Your task to perform on an android device: open chrome privacy settings Image 0: 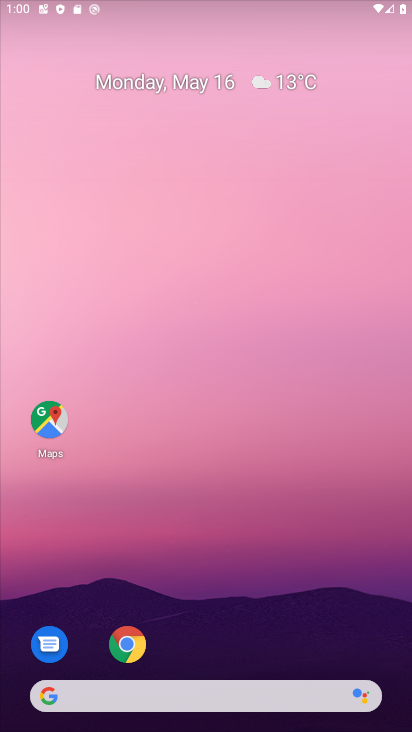
Step 0: drag from (211, 597) to (289, 190)
Your task to perform on an android device: open chrome privacy settings Image 1: 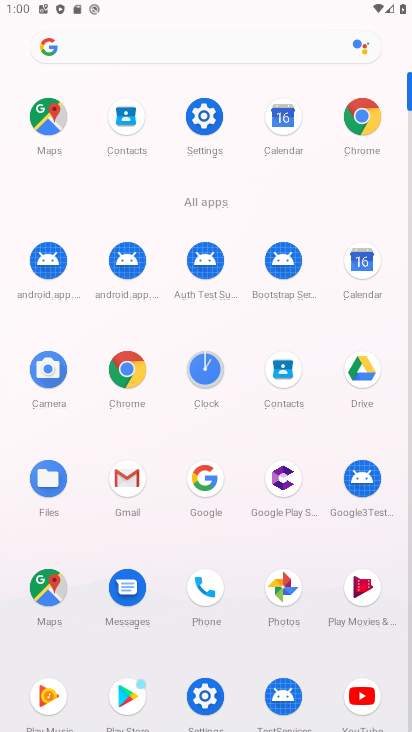
Step 1: click (358, 151)
Your task to perform on an android device: open chrome privacy settings Image 2: 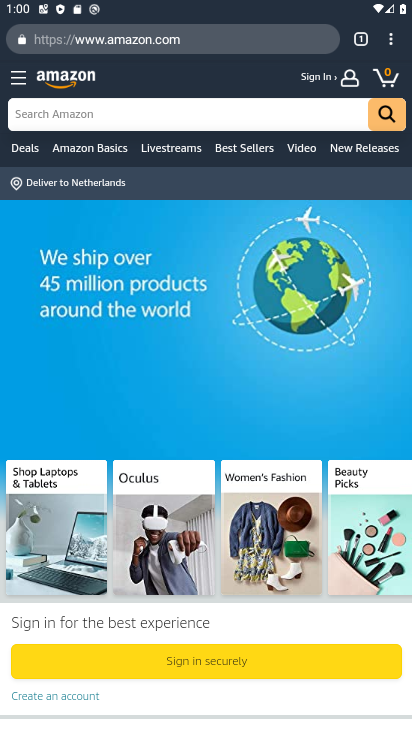
Step 2: click (391, 53)
Your task to perform on an android device: open chrome privacy settings Image 3: 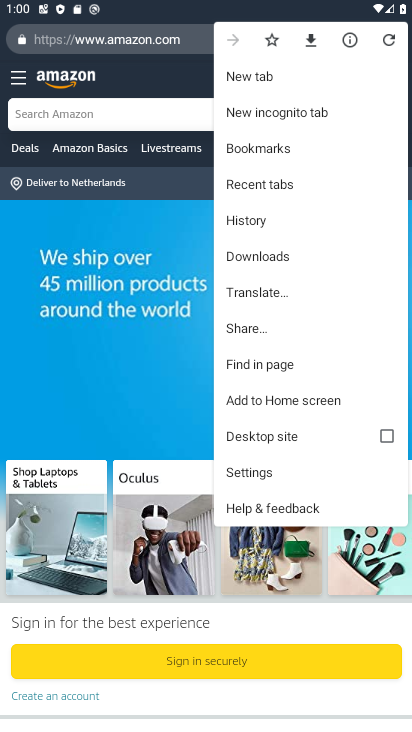
Step 3: click (271, 480)
Your task to perform on an android device: open chrome privacy settings Image 4: 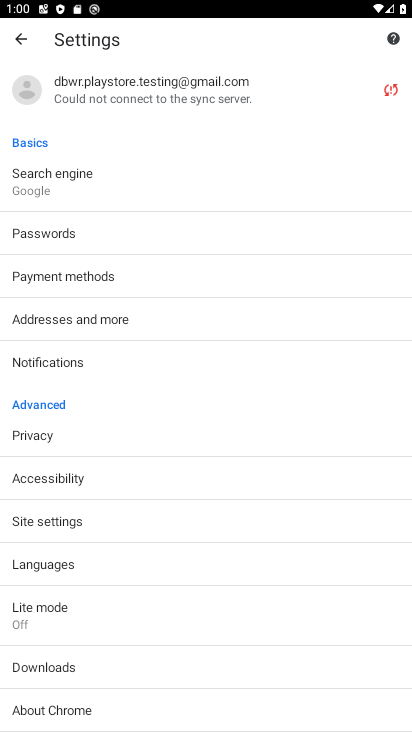
Step 4: click (50, 449)
Your task to perform on an android device: open chrome privacy settings Image 5: 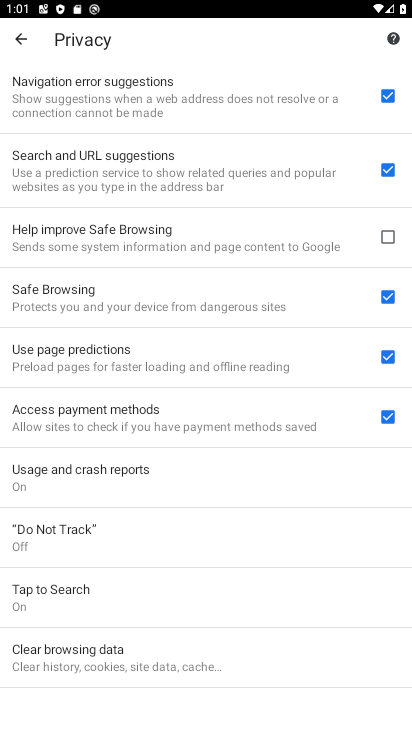
Step 5: task complete